Your task to perform on an android device: turn off location history Image 0: 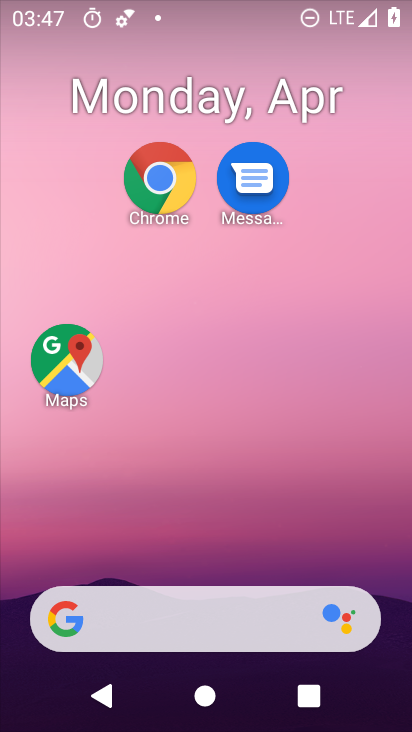
Step 0: drag from (274, 616) to (348, 157)
Your task to perform on an android device: turn off location history Image 1: 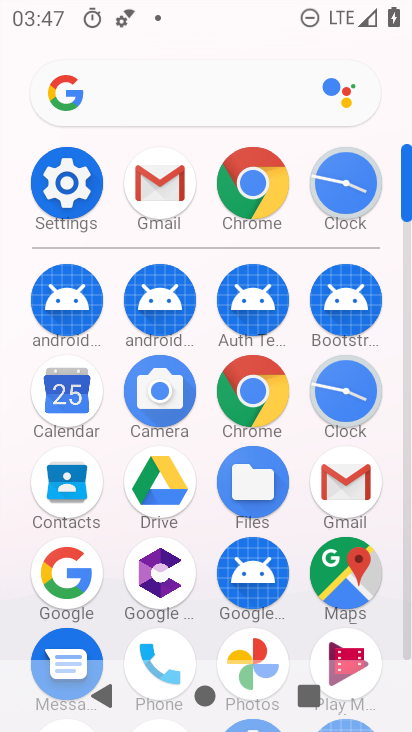
Step 1: drag from (290, 644) to (313, 149)
Your task to perform on an android device: turn off location history Image 2: 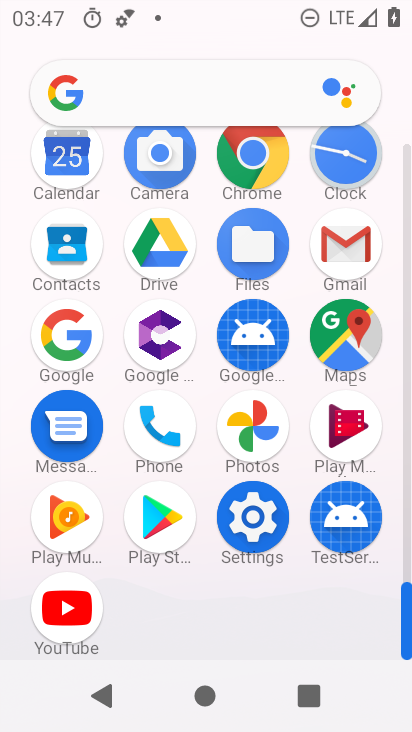
Step 2: click (255, 541)
Your task to perform on an android device: turn off location history Image 3: 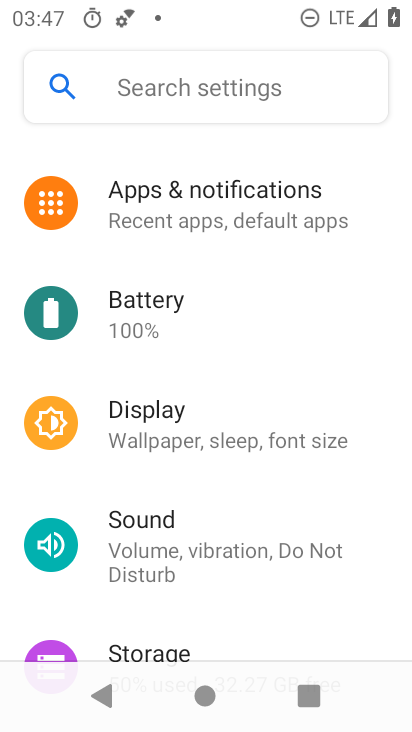
Step 3: drag from (277, 599) to (270, 107)
Your task to perform on an android device: turn off location history Image 4: 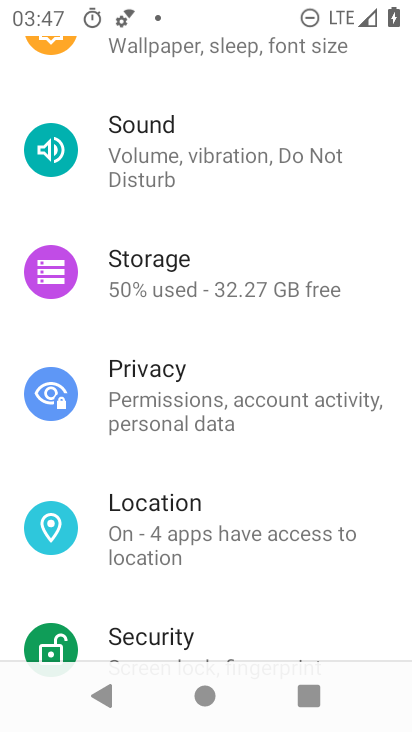
Step 4: click (231, 548)
Your task to perform on an android device: turn off location history Image 5: 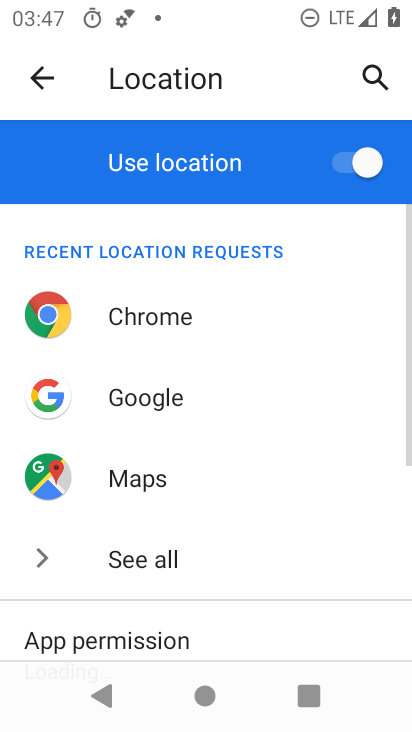
Step 5: drag from (262, 638) to (254, 97)
Your task to perform on an android device: turn off location history Image 6: 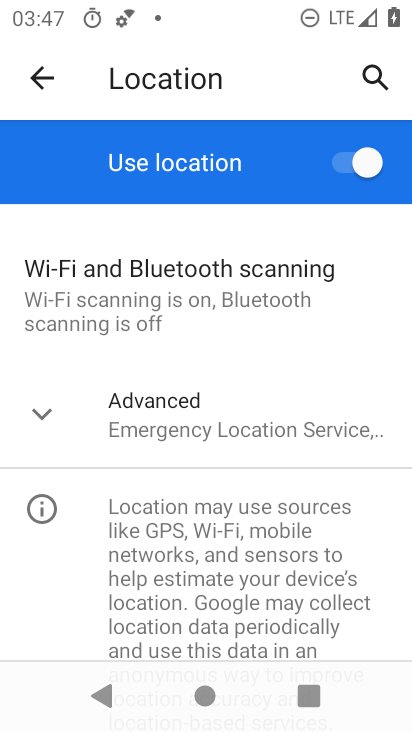
Step 6: click (195, 410)
Your task to perform on an android device: turn off location history Image 7: 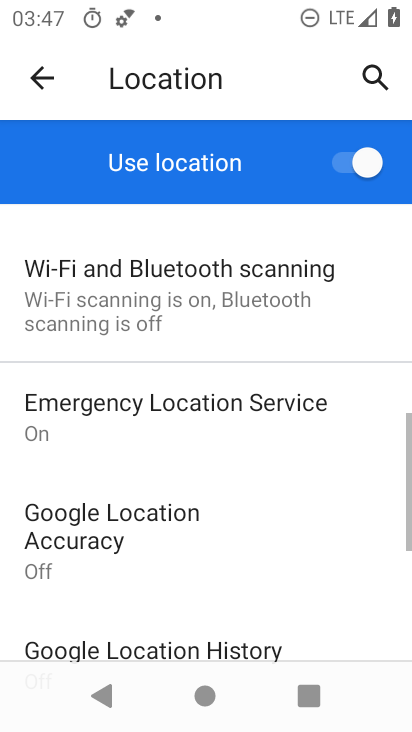
Step 7: drag from (308, 658) to (309, 234)
Your task to perform on an android device: turn off location history Image 8: 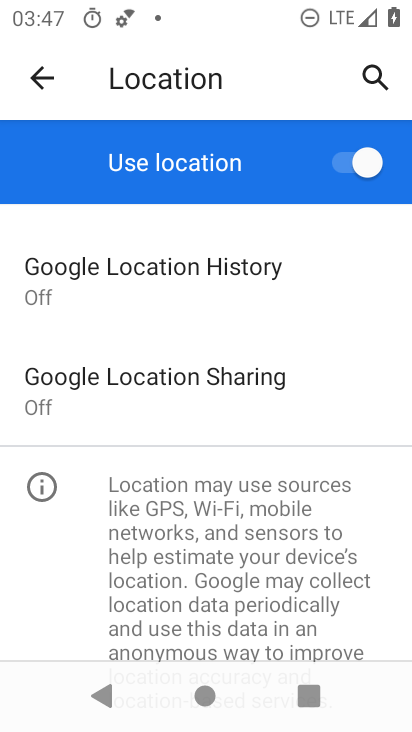
Step 8: click (230, 291)
Your task to perform on an android device: turn off location history Image 9: 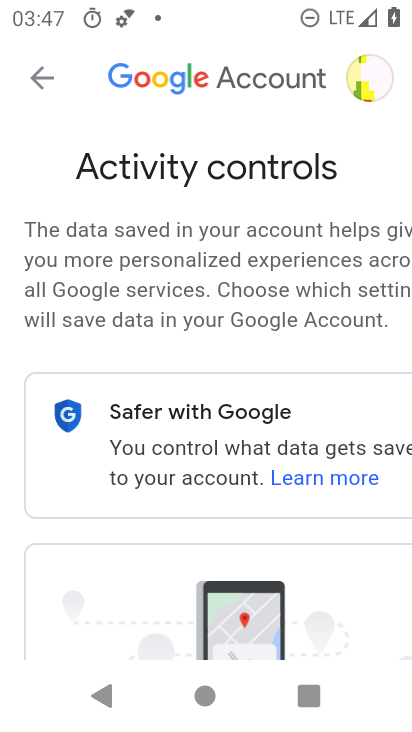
Step 9: task complete